Your task to perform on an android device: Open internet settings Image 0: 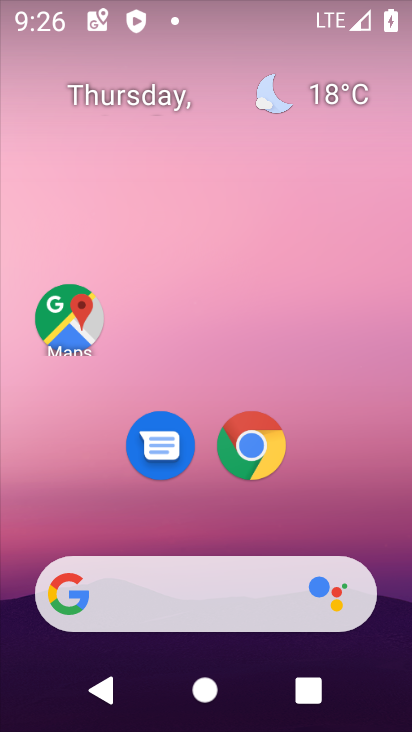
Step 0: drag from (393, 543) to (298, 126)
Your task to perform on an android device: Open internet settings Image 1: 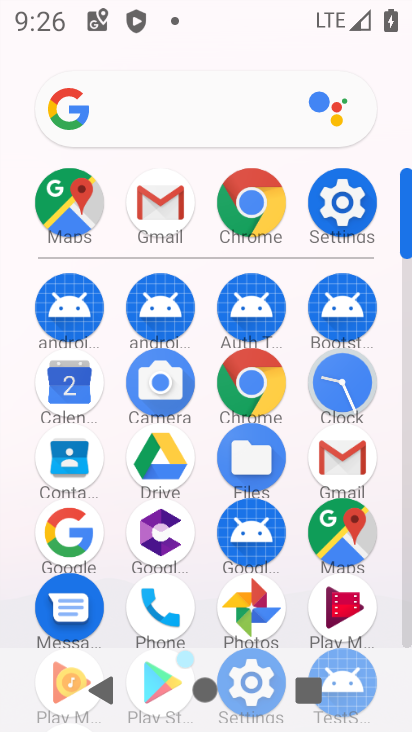
Step 1: click (353, 208)
Your task to perform on an android device: Open internet settings Image 2: 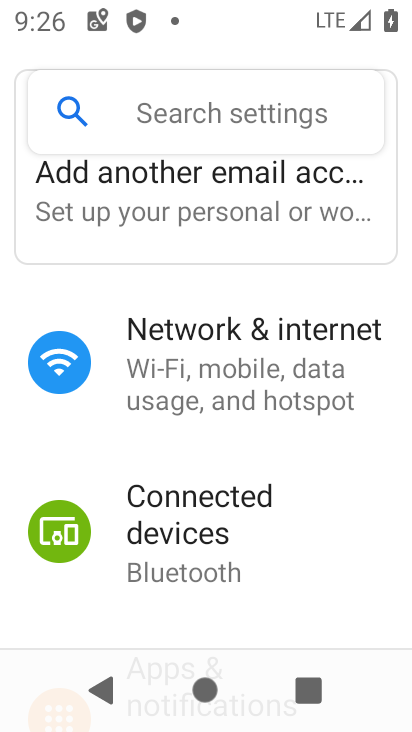
Step 2: click (274, 340)
Your task to perform on an android device: Open internet settings Image 3: 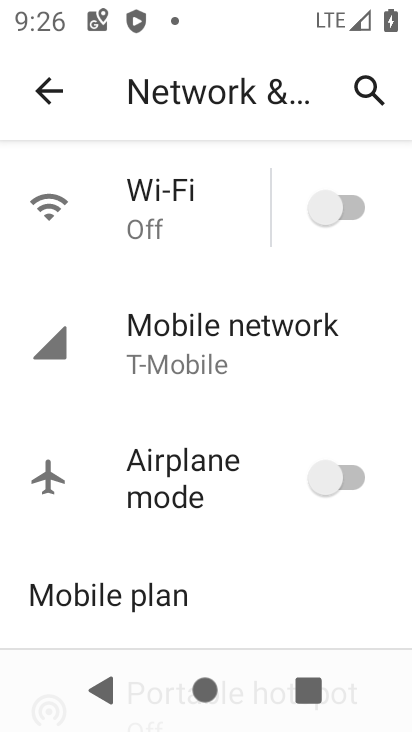
Step 3: task complete